Your task to perform on an android device: Go to CNN.com Image 0: 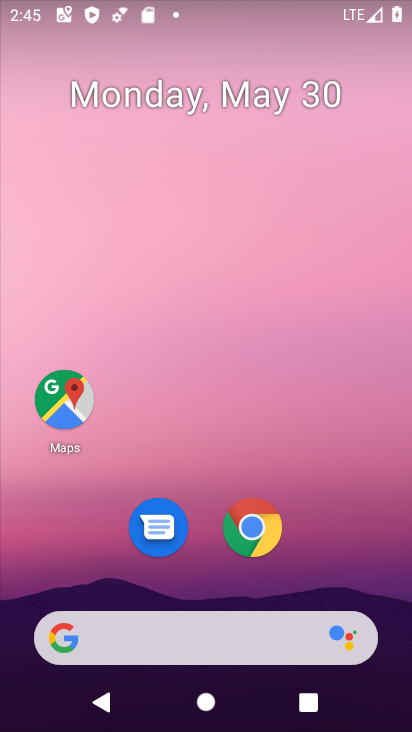
Step 0: click (263, 526)
Your task to perform on an android device: Go to CNN.com Image 1: 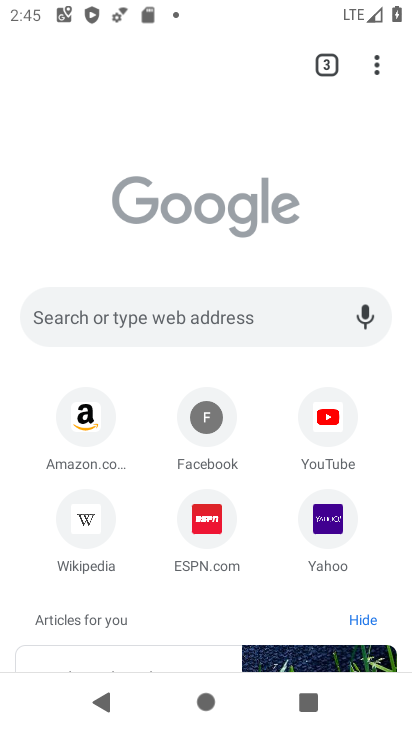
Step 1: click (252, 318)
Your task to perform on an android device: Go to CNN.com Image 2: 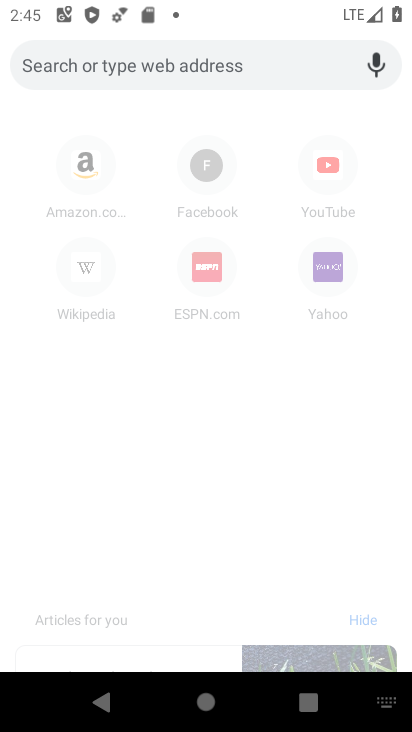
Step 2: type " CNN.com"
Your task to perform on an android device: Go to CNN.com Image 3: 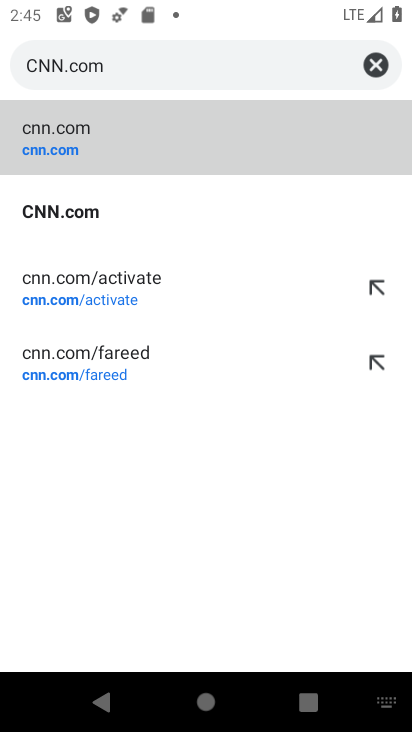
Step 3: click (48, 149)
Your task to perform on an android device: Go to CNN.com Image 4: 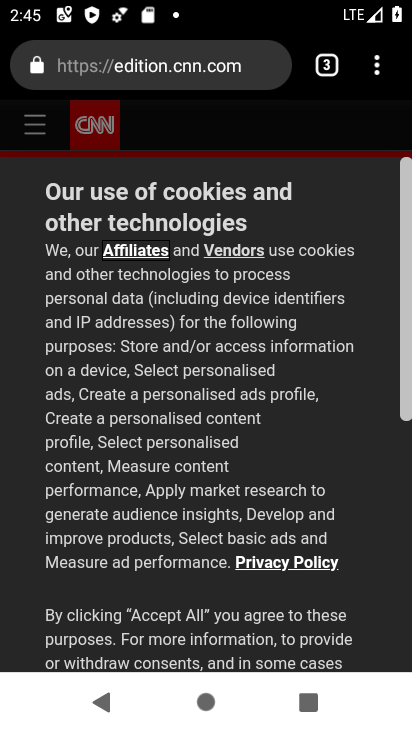
Step 4: task complete